Your task to perform on an android device: Go to Google Image 0: 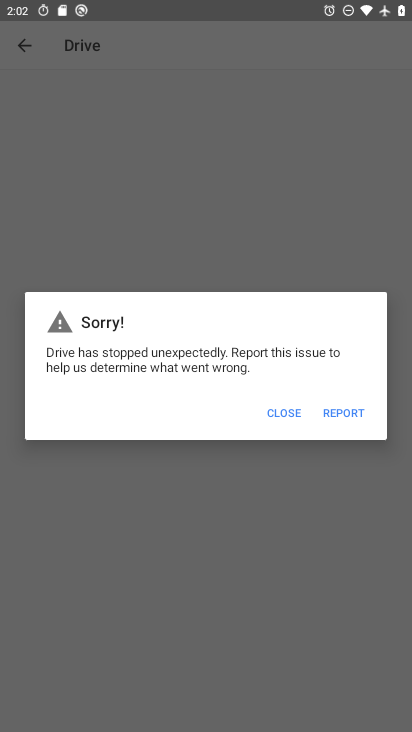
Step 0: press home button
Your task to perform on an android device: Go to Google Image 1: 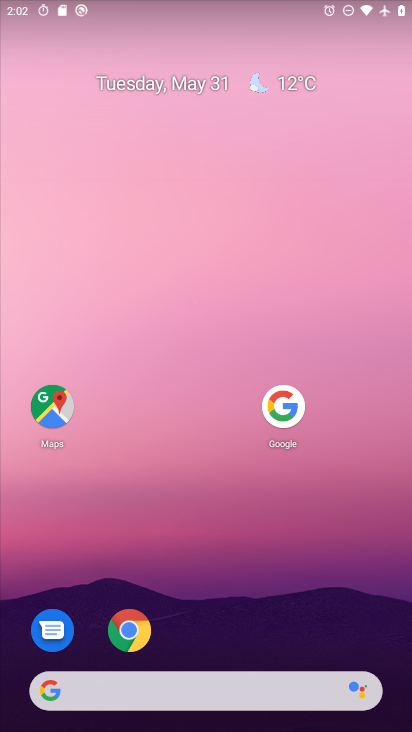
Step 1: drag from (221, 573) to (308, 71)
Your task to perform on an android device: Go to Google Image 2: 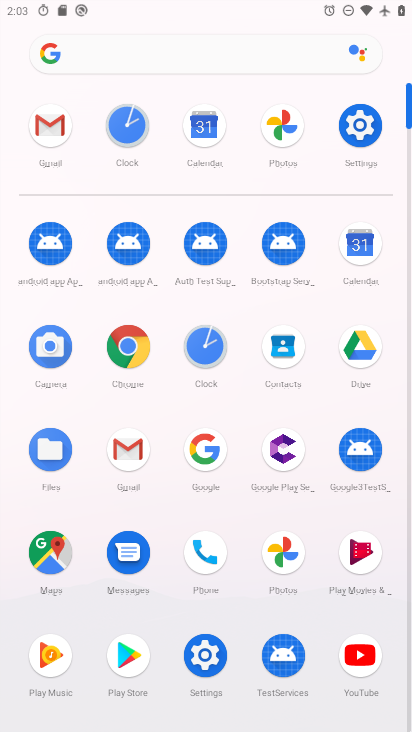
Step 2: click (213, 452)
Your task to perform on an android device: Go to Google Image 3: 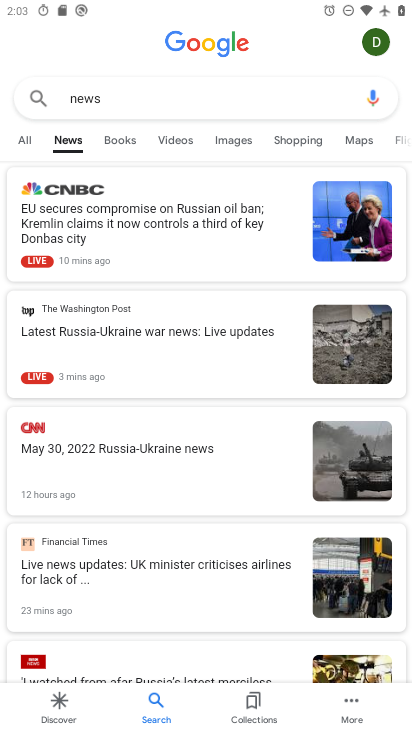
Step 3: task complete